Your task to perform on an android device: turn on showing notifications on the lock screen Image 0: 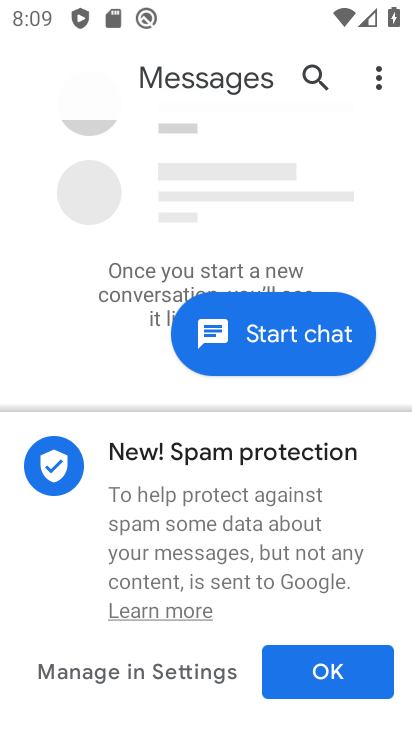
Step 0: press home button
Your task to perform on an android device: turn on showing notifications on the lock screen Image 1: 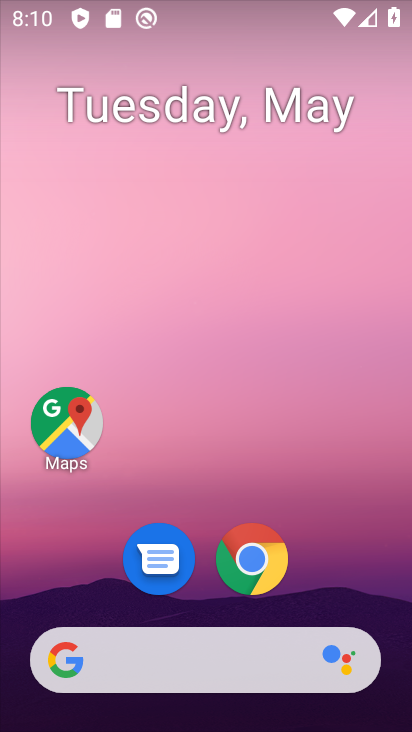
Step 1: drag from (215, 658) to (182, 1)
Your task to perform on an android device: turn on showing notifications on the lock screen Image 2: 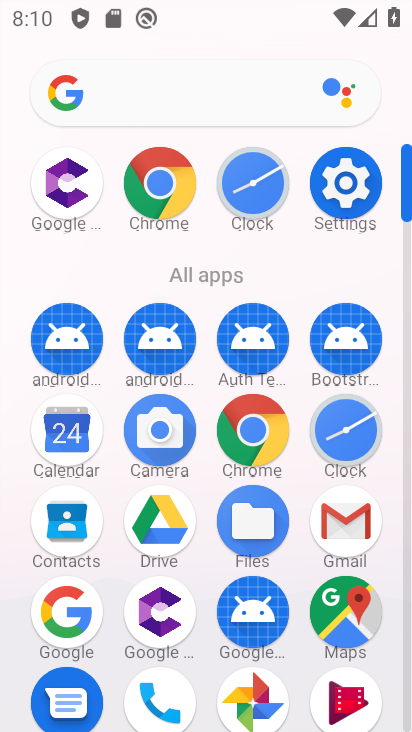
Step 2: click (350, 194)
Your task to perform on an android device: turn on showing notifications on the lock screen Image 3: 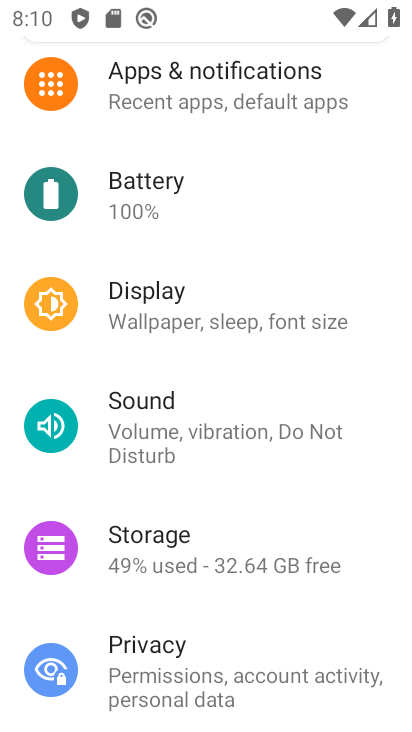
Step 3: click (261, 103)
Your task to perform on an android device: turn on showing notifications on the lock screen Image 4: 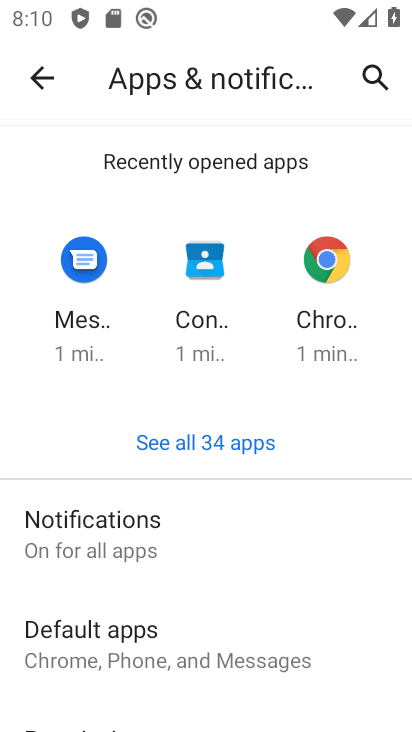
Step 4: click (178, 506)
Your task to perform on an android device: turn on showing notifications on the lock screen Image 5: 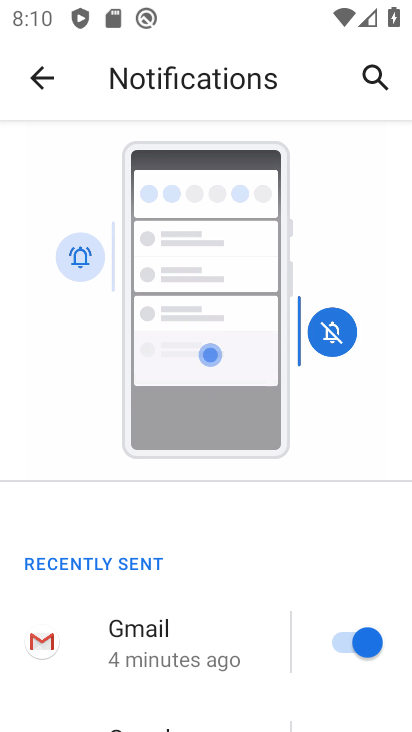
Step 5: drag from (233, 623) to (216, 108)
Your task to perform on an android device: turn on showing notifications on the lock screen Image 6: 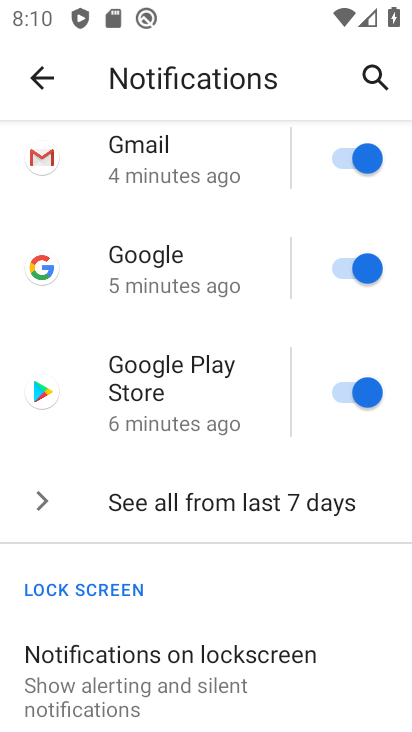
Step 6: click (227, 675)
Your task to perform on an android device: turn on showing notifications on the lock screen Image 7: 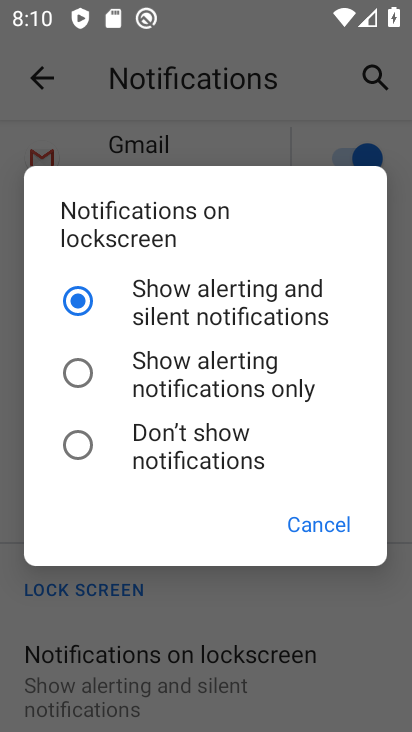
Step 7: click (186, 291)
Your task to perform on an android device: turn on showing notifications on the lock screen Image 8: 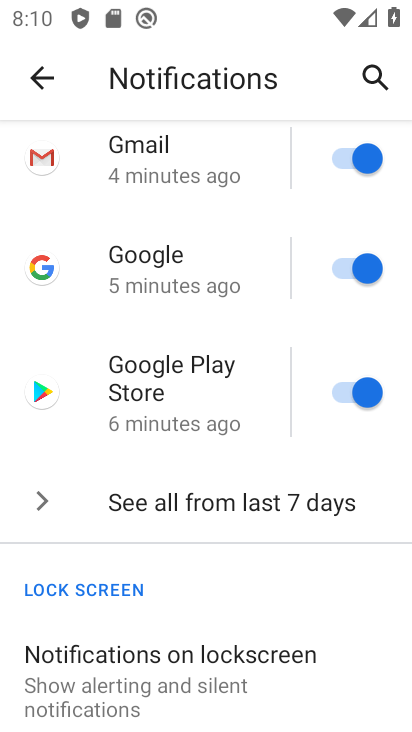
Step 8: task complete